Your task to perform on an android device: When is my next appointment? Image 0: 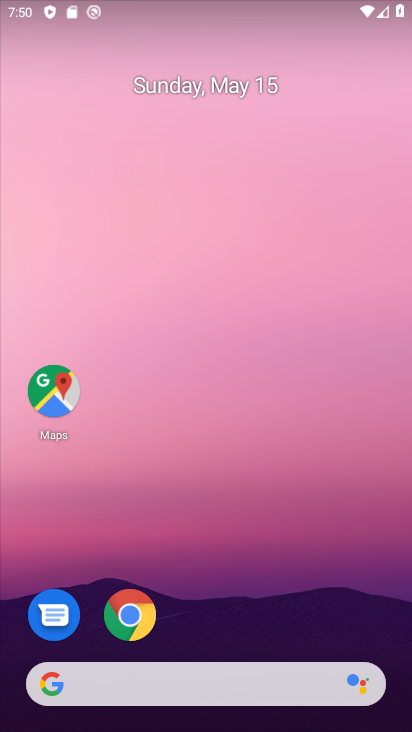
Step 0: drag from (295, 709) to (203, 270)
Your task to perform on an android device: When is my next appointment? Image 1: 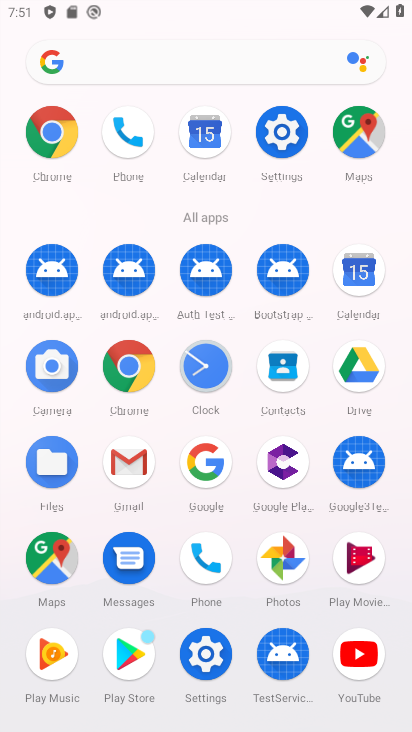
Step 1: click (361, 283)
Your task to perform on an android device: When is my next appointment? Image 2: 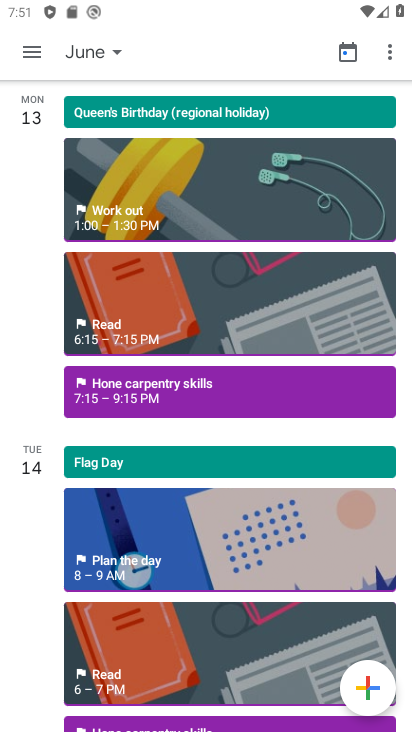
Step 2: click (22, 51)
Your task to perform on an android device: When is my next appointment? Image 3: 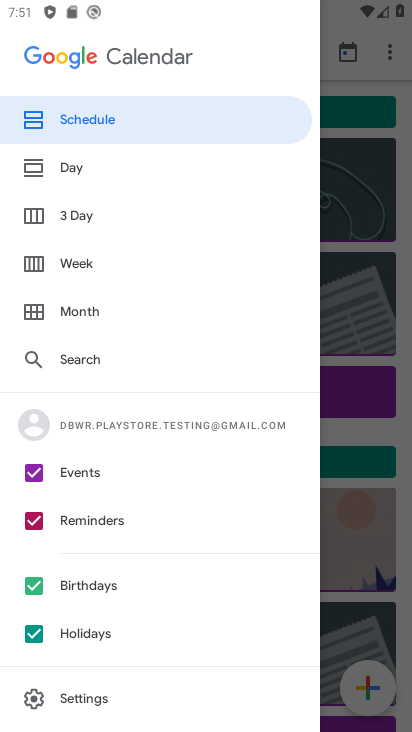
Step 3: click (90, 212)
Your task to perform on an android device: When is my next appointment? Image 4: 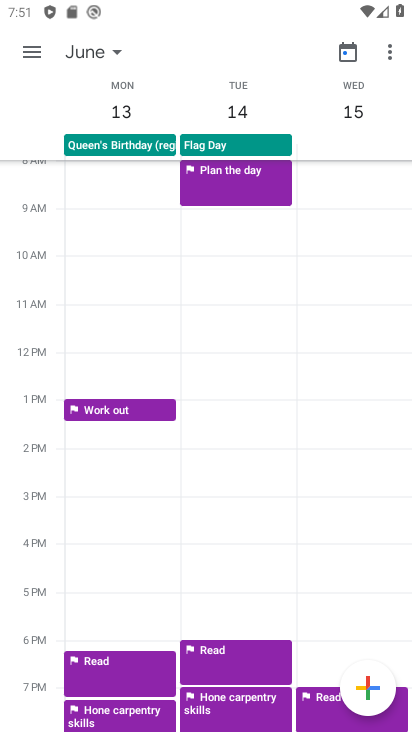
Step 4: click (36, 46)
Your task to perform on an android device: When is my next appointment? Image 5: 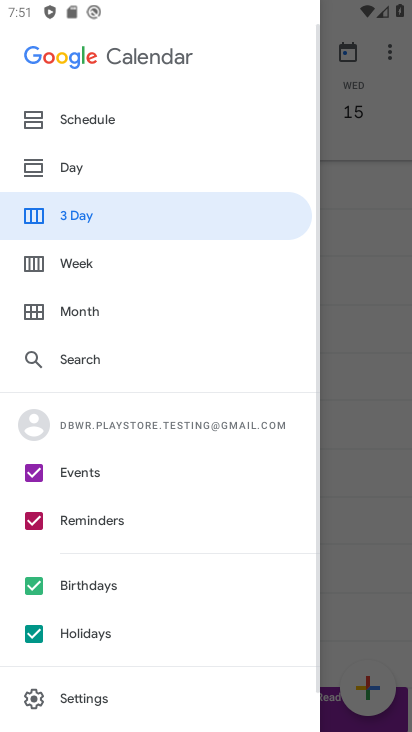
Step 5: click (61, 307)
Your task to perform on an android device: When is my next appointment? Image 6: 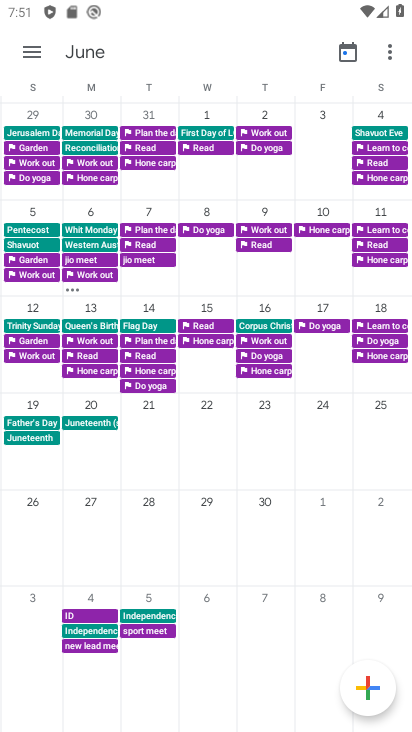
Step 6: drag from (65, 387) to (408, 392)
Your task to perform on an android device: When is my next appointment? Image 7: 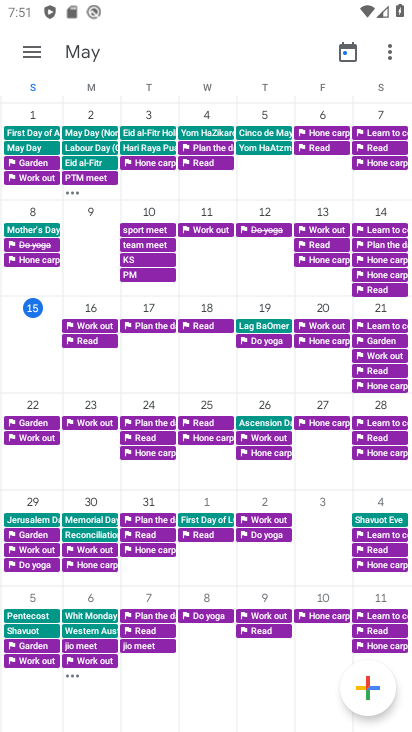
Step 7: click (93, 326)
Your task to perform on an android device: When is my next appointment? Image 8: 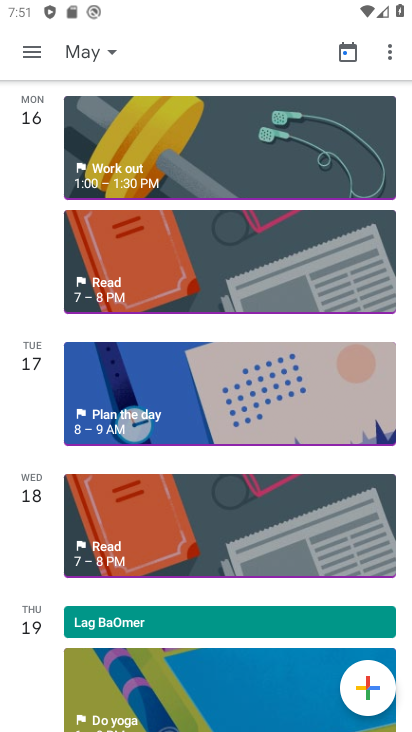
Step 8: drag from (107, 156) to (200, 491)
Your task to perform on an android device: When is my next appointment? Image 9: 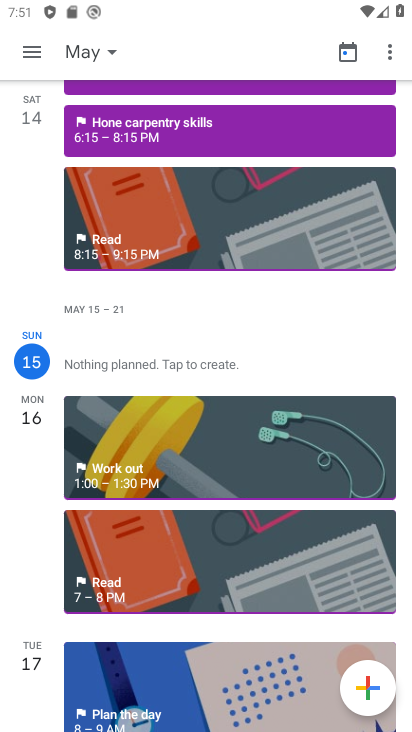
Step 9: click (32, 363)
Your task to perform on an android device: When is my next appointment? Image 10: 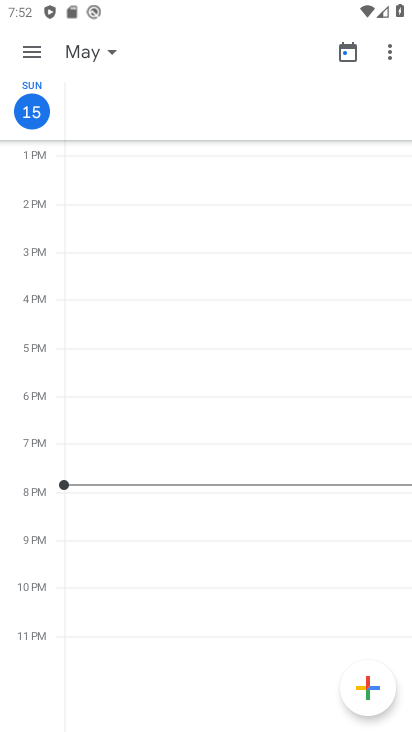
Step 10: click (31, 116)
Your task to perform on an android device: When is my next appointment? Image 11: 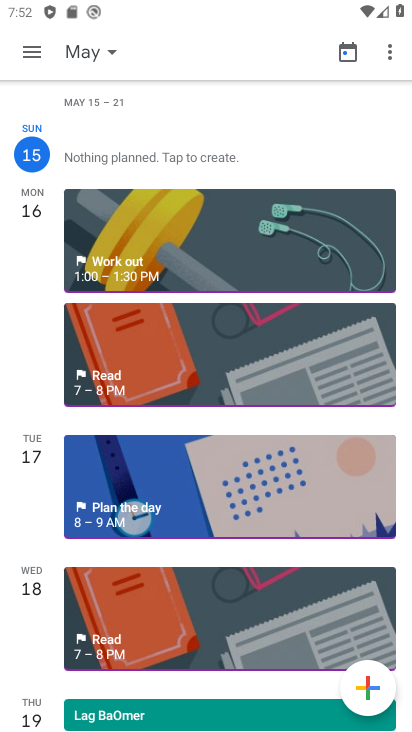
Step 11: task complete